Your task to perform on an android device: toggle pop-ups in chrome Image 0: 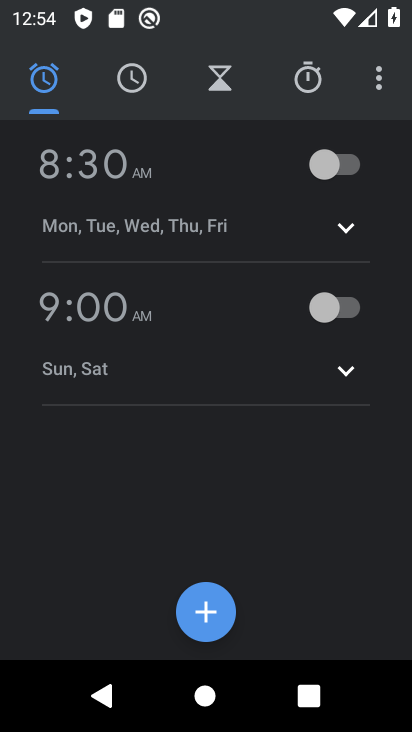
Step 0: press home button
Your task to perform on an android device: toggle pop-ups in chrome Image 1: 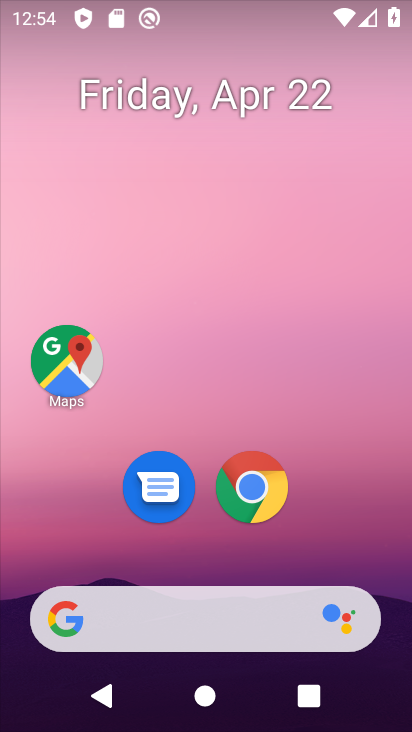
Step 1: click (251, 464)
Your task to perform on an android device: toggle pop-ups in chrome Image 2: 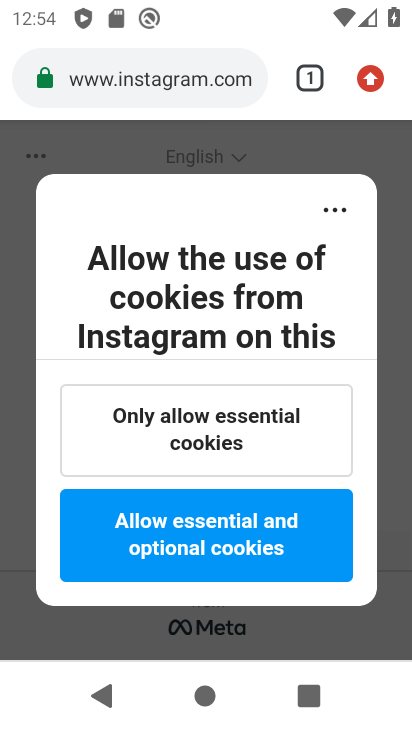
Step 2: drag from (365, 75) to (135, 542)
Your task to perform on an android device: toggle pop-ups in chrome Image 3: 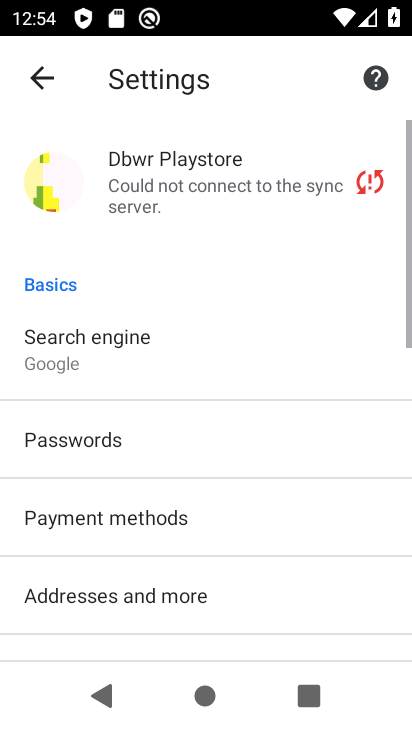
Step 3: drag from (212, 546) to (239, 203)
Your task to perform on an android device: toggle pop-ups in chrome Image 4: 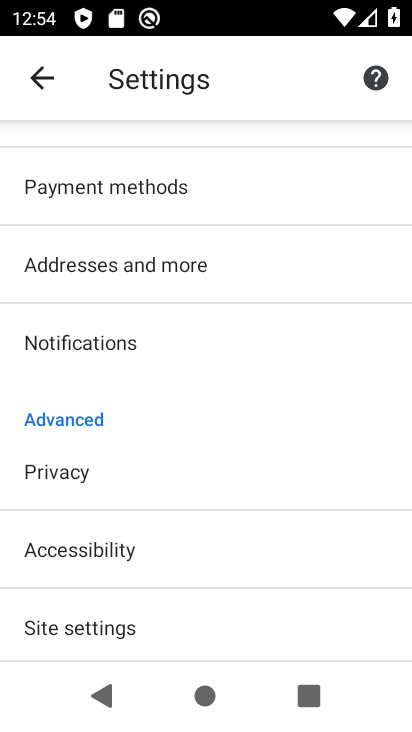
Step 4: drag from (164, 586) to (207, 341)
Your task to perform on an android device: toggle pop-ups in chrome Image 5: 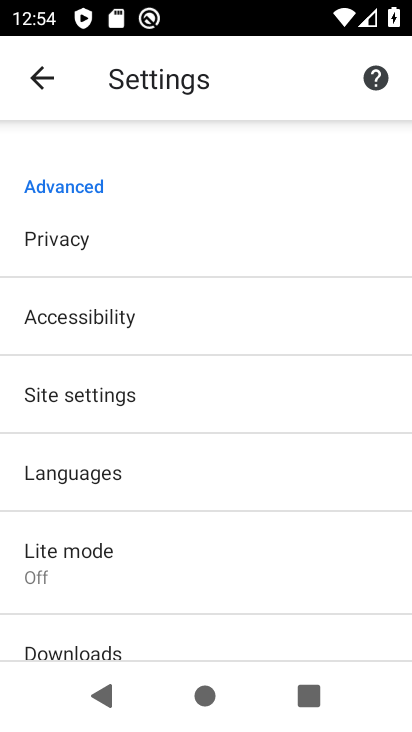
Step 5: drag from (123, 548) to (167, 381)
Your task to perform on an android device: toggle pop-ups in chrome Image 6: 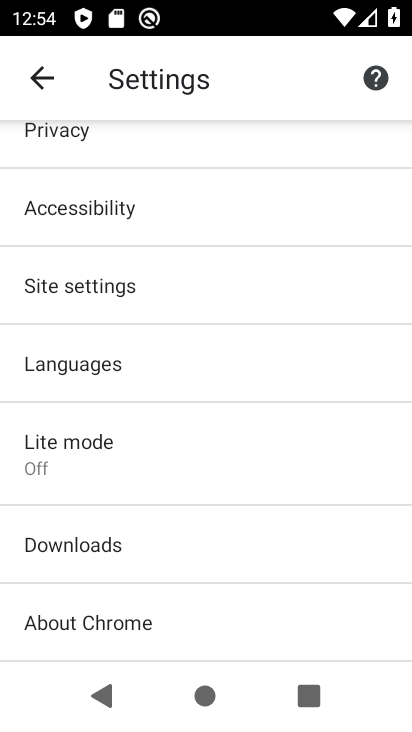
Step 6: click (146, 287)
Your task to perform on an android device: toggle pop-ups in chrome Image 7: 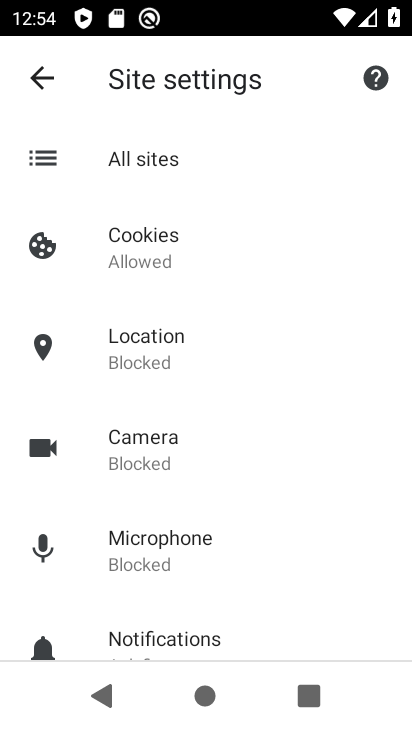
Step 7: drag from (228, 426) to (242, 352)
Your task to perform on an android device: toggle pop-ups in chrome Image 8: 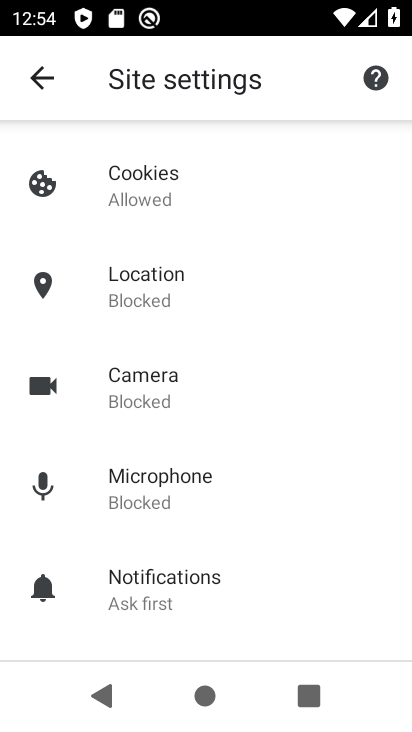
Step 8: drag from (230, 532) to (269, 262)
Your task to perform on an android device: toggle pop-ups in chrome Image 9: 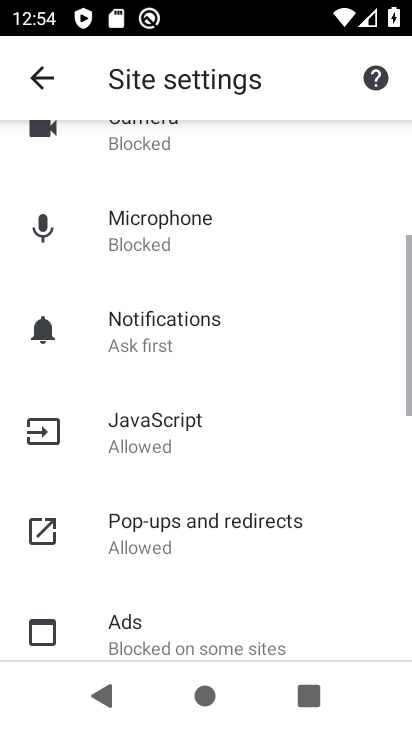
Step 9: click (241, 294)
Your task to perform on an android device: toggle pop-ups in chrome Image 10: 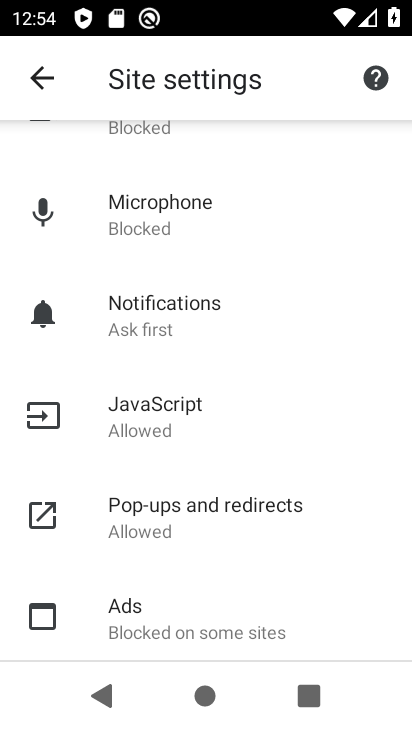
Step 10: click (204, 506)
Your task to perform on an android device: toggle pop-ups in chrome Image 11: 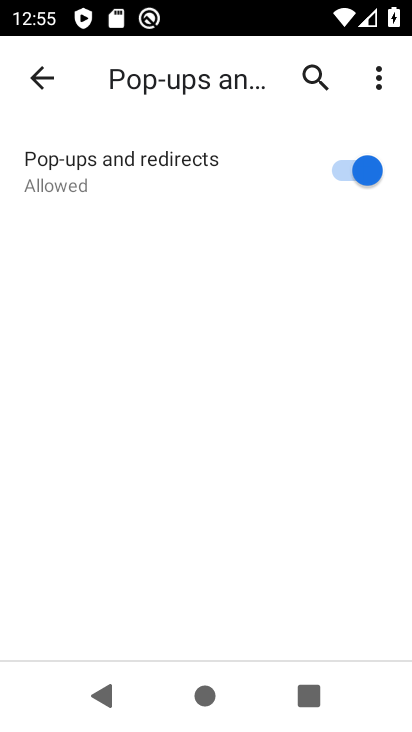
Step 11: click (341, 171)
Your task to perform on an android device: toggle pop-ups in chrome Image 12: 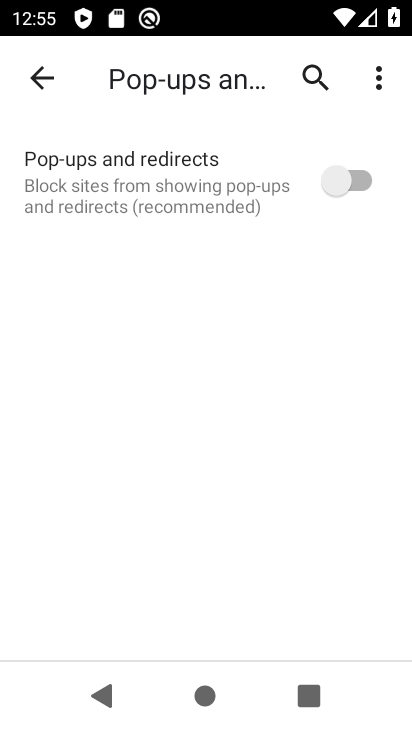
Step 12: task complete